Your task to perform on an android device: Check the weather Image 0: 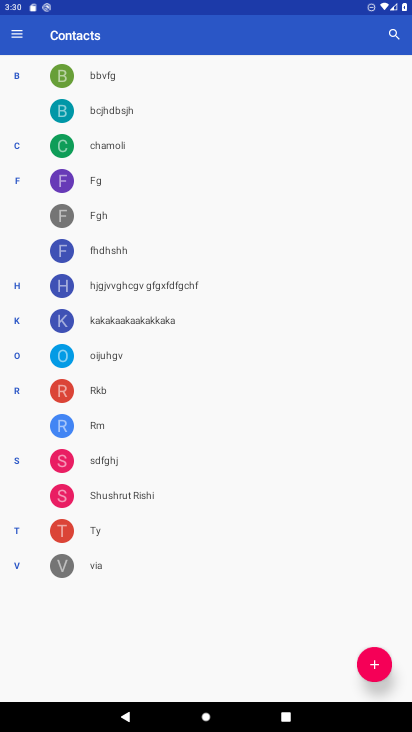
Step 0: press home button
Your task to perform on an android device: Check the weather Image 1: 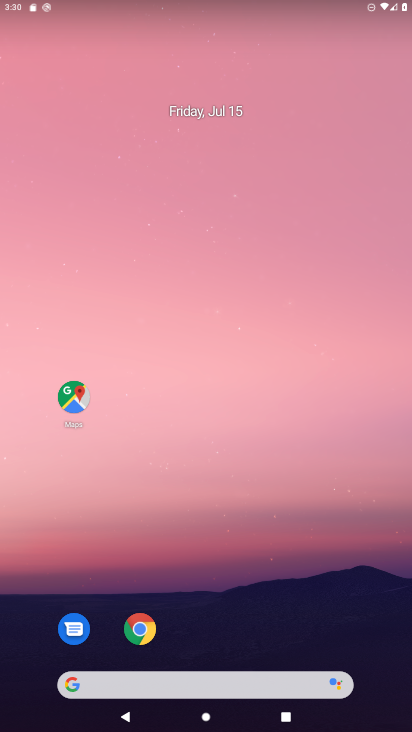
Step 1: drag from (327, 537) to (333, 85)
Your task to perform on an android device: Check the weather Image 2: 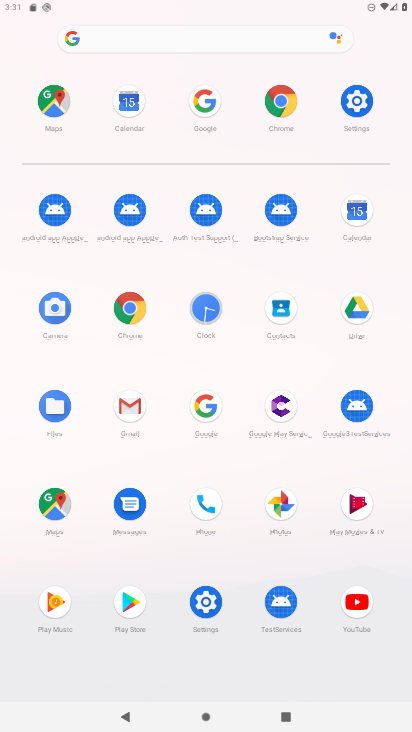
Step 2: click (212, 104)
Your task to perform on an android device: Check the weather Image 3: 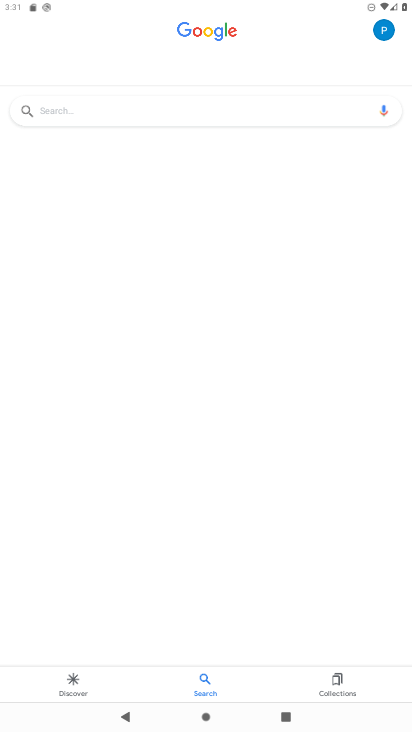
Step 3: click (192, 111)
Your task to perform on an android device: Check the weather Image 4: 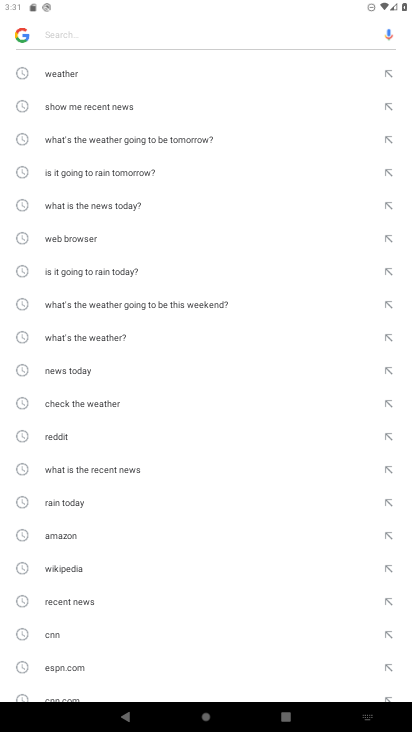
Step 4: click (73, 78)
Your task to perform on an android device: Check the weather Image 5: 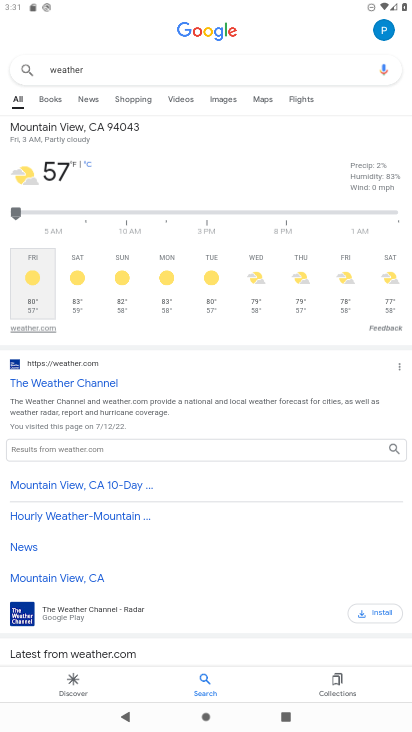
Step 5: task complete